Your task to perform on an android device: toggle javascript in the chrome app Image 0: 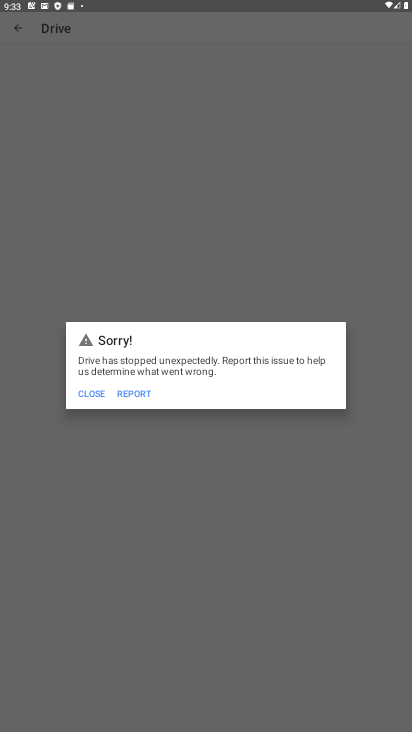
Step 0: press home button
Your task to perform on an android device: toggle javascript in the chrome app Image 1: 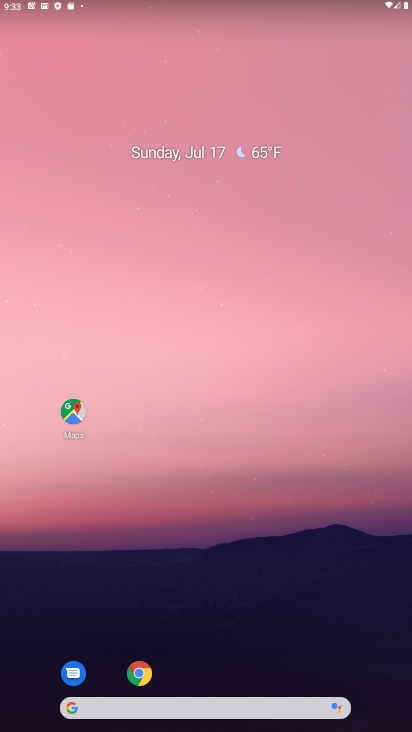
Step 1: click (141, 679)
Your task to perform on an android device: toggle javascript in the chrome app Image 2: 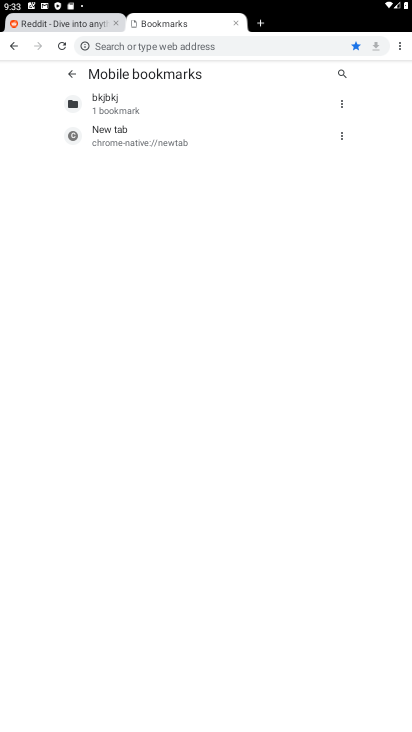
Step 2: click (401, 46)
Your task to perform on an android device: toggle javascript in the chrome app Image 3: 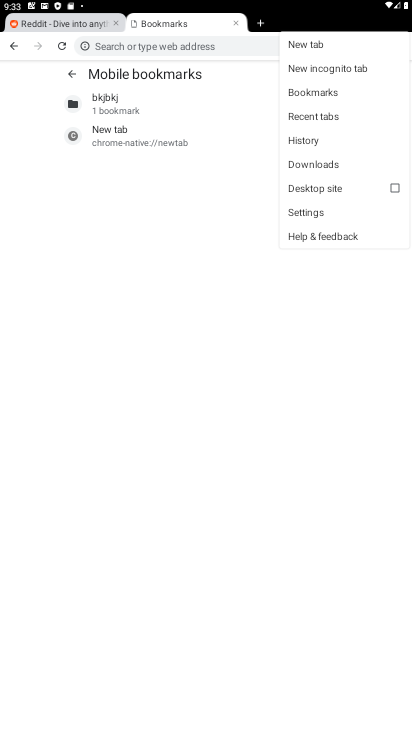
Step 3: click (307, 210)
Your task to perform on an android device: toggle javascript in the chrome app Image 4: 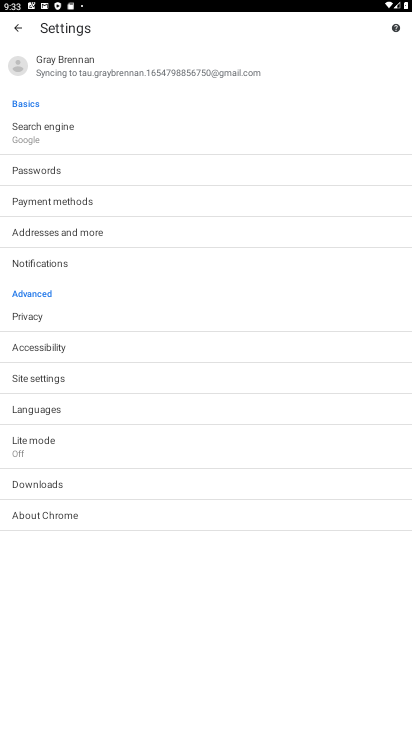
Step 4: click (42, 376)
Your task to perform on an android device: toggle javascript in the chrome app Image 5: 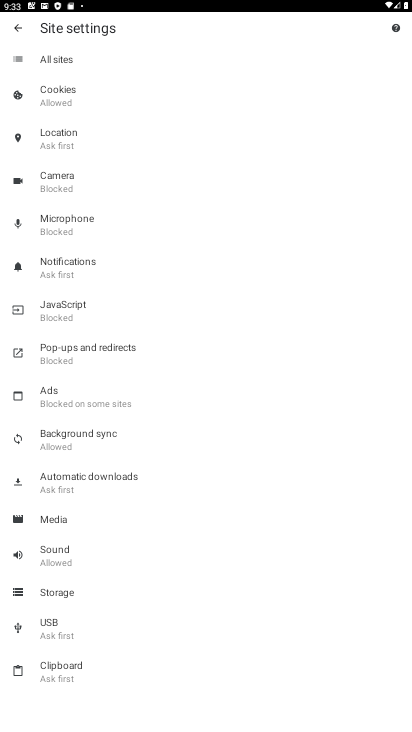
Step 5: click (66, 300)
Your task to perform on an android device: toggle javascript in the chrome app Image 6: 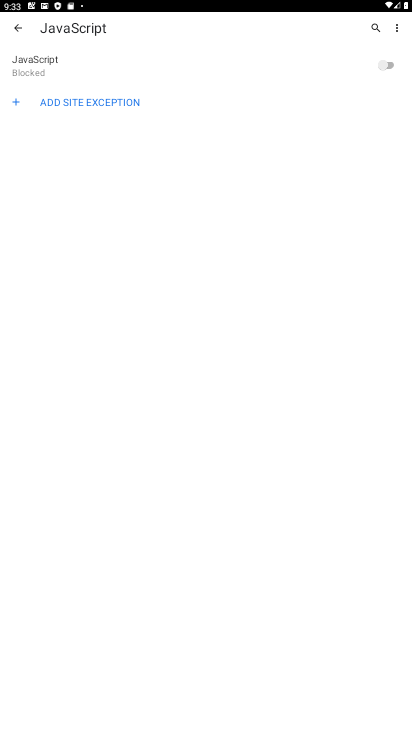
Step 6: click (389, 65)
Your task to perform on an android device: toggle javascript in the chrome app Image 7: 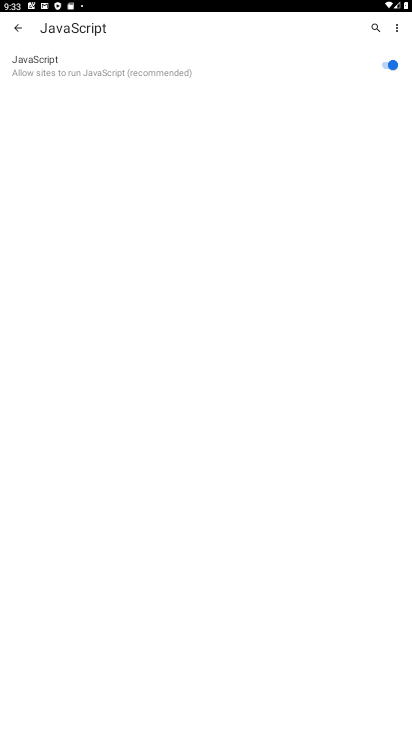
Step 7: task complete